Your task to perform on an android device: Open CNN.com Image 0: 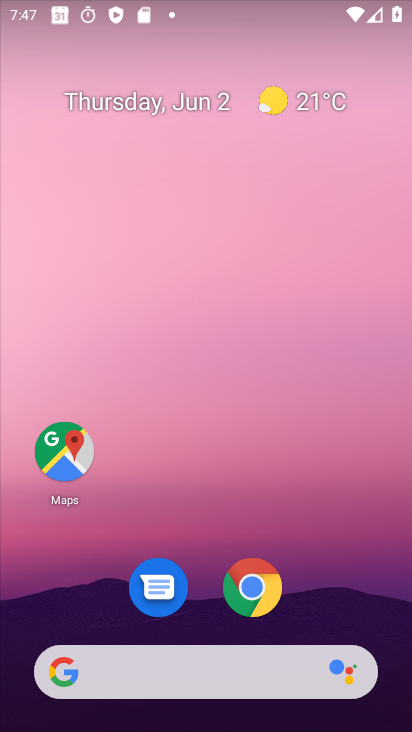
Step 0: click (255, 589)
Your task to perform on an android device: Open CNN.com Image 1: 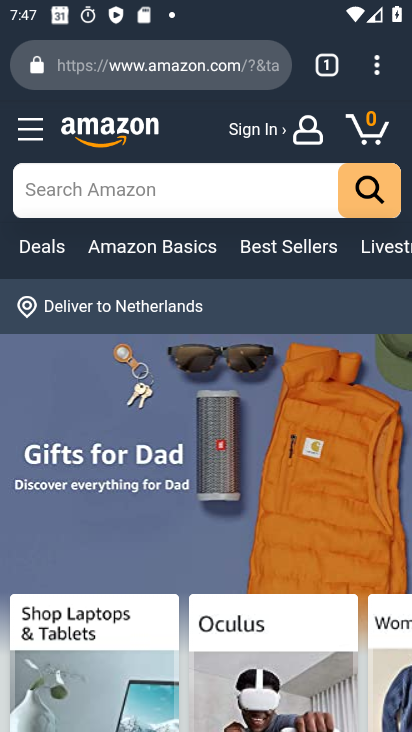
Step 1: click (93, 74)
Your task to perform on an android device: Open CNN.com Image 2: 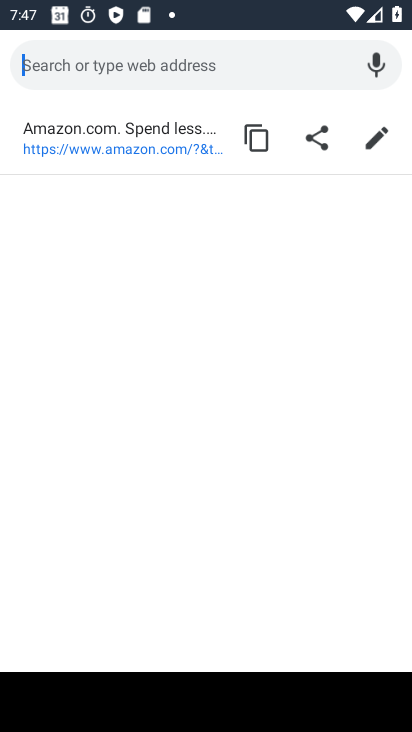
Step 2: type "cnn.com"
Your task to perform on an android device: Open CNN.com Image 3: 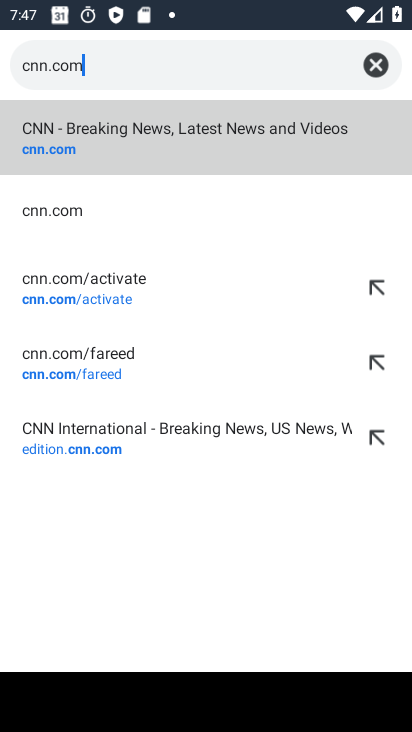
Step 3: click (48, 211)
Your task to perform on an android device: Open CNN.com Image 4: 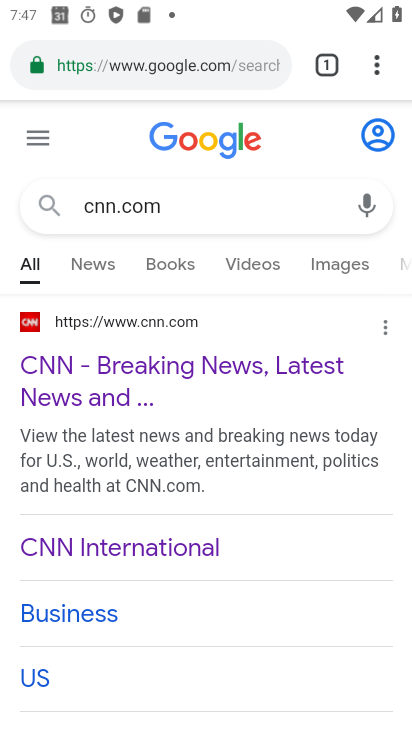
Step 4: click (45, 365)
Your task to perform on an android device: Open CNN.com Image 5: 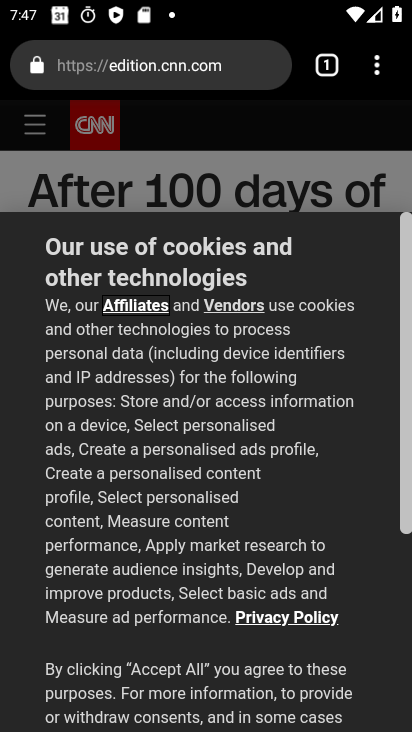
Step 5: task complete